Your task to perform on an android device: stop showing notifications on the lock screen Image 0: 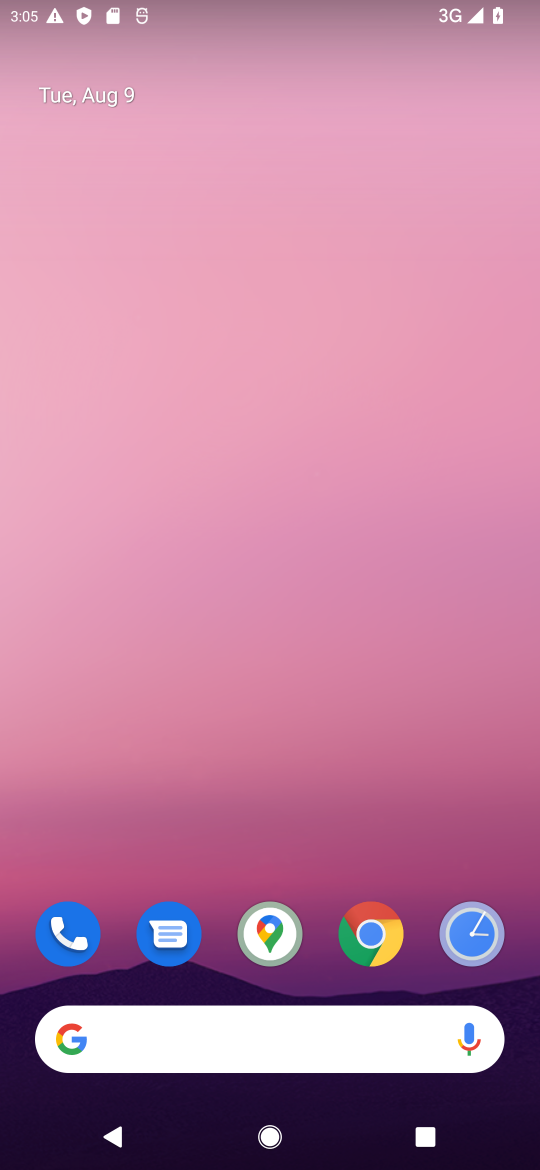
Step 0: drag from (316, 989) to (336, 78)
Your task to perform on an android device: stop showing notifications on the lock screen Image 1: 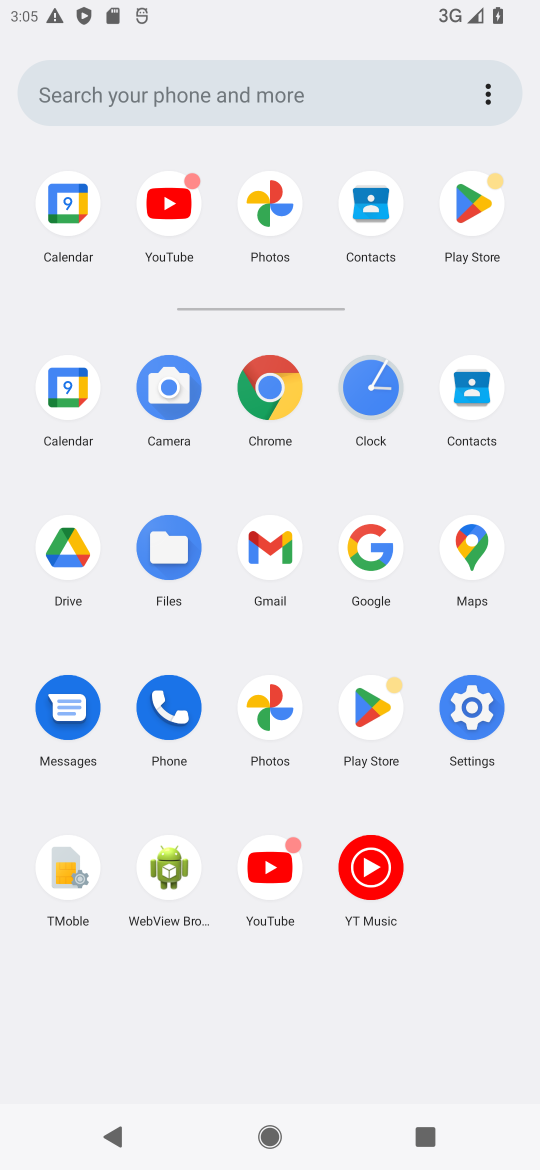
Step 1: click (438, 703)
Your task to perform on an android device: stop showing notifications on the lock screen Image 2: 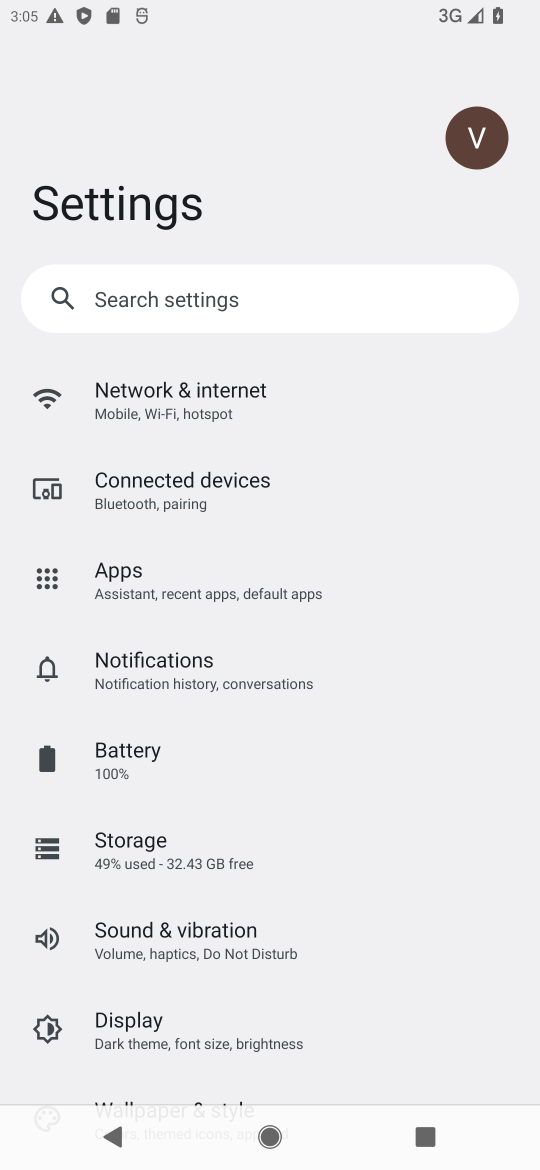
Step 2: task complete